Your task to perform on an android device: turn on the 24-hour format for clock Image 0: 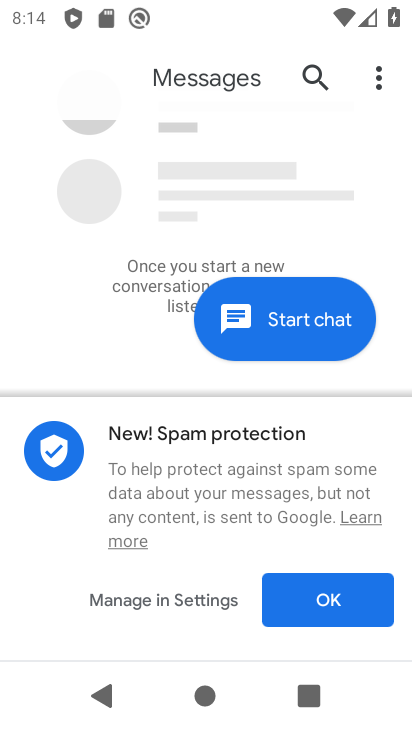
Step 0: press home button
Your task to perform on an android device: turn on the 24-hour format for clock Image 1: 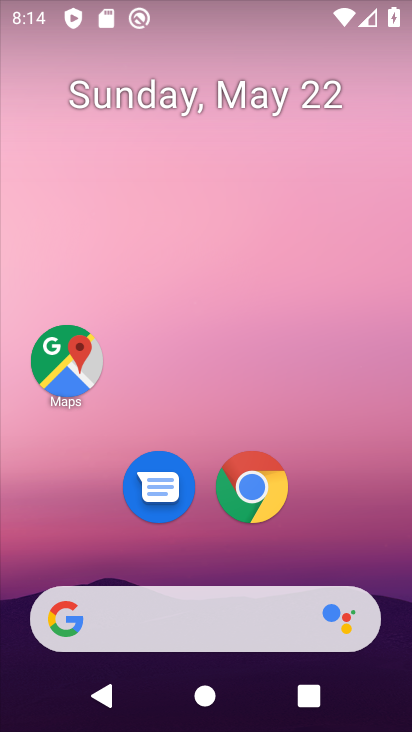
Step 1: drag from (197, 571) to (287, 19)
Your task to perform on an android device: turn on the 24-hour format for clock Image 2: 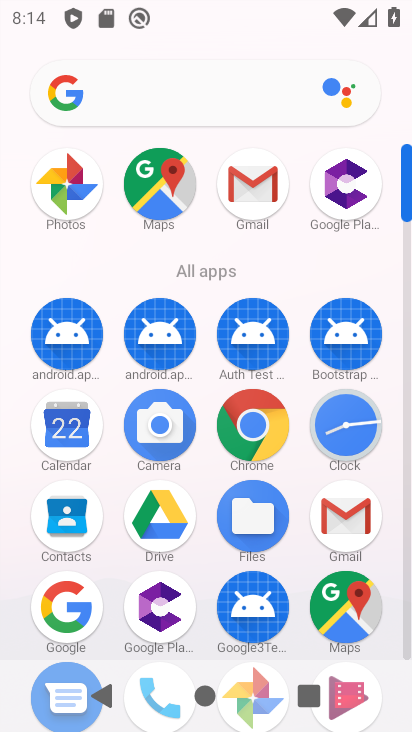
Step 2: click (345, 426)
Your task to perform on an android device: turn on the 24-hour format for clock Image 3: 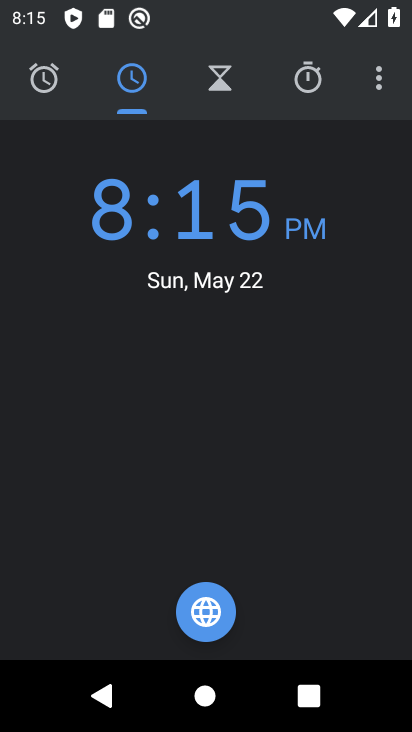
Step 3: click (390, 85)
Your task to perform on an android device: turn on the 24-hour format for clock Image 4: 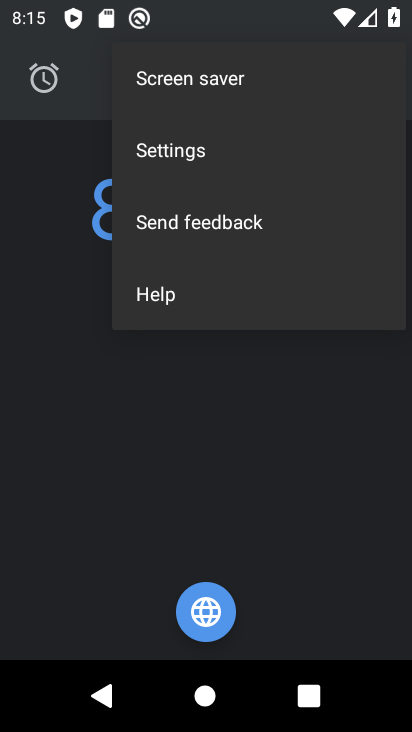
Step 4: click (259, 145)
Your task to perform on an android device: turn on the 24-hour format for clock Image 5: 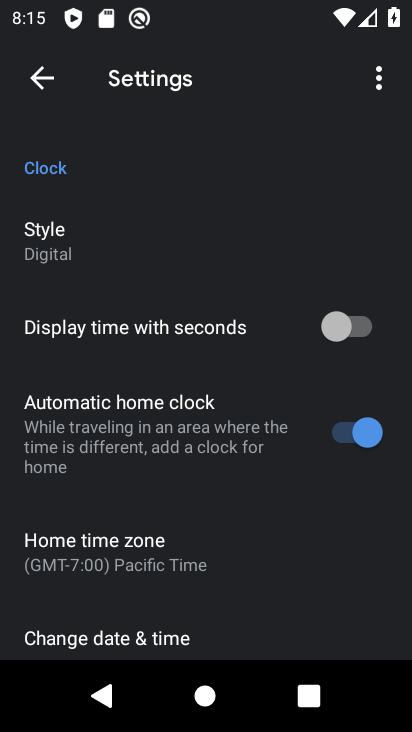
Step 5: click (51, 637)
Your task to perform on an android device: turn on the 24-hour format for clock Image 6: 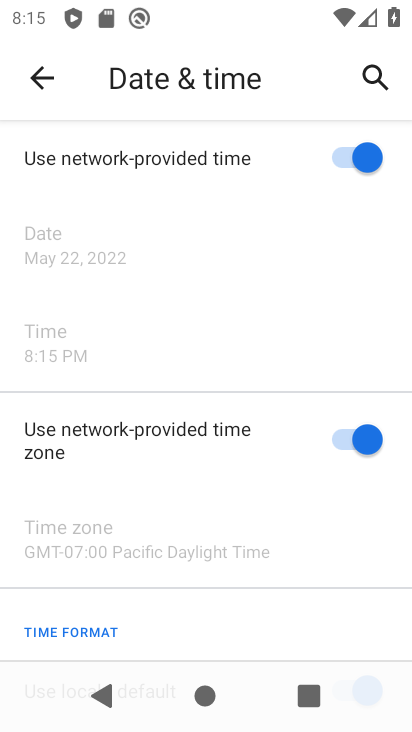
Step 6: drag from (190, 632) to (260, 221)
Your task to perform on an android device: turn on the 24-hour format for clock Image 7: 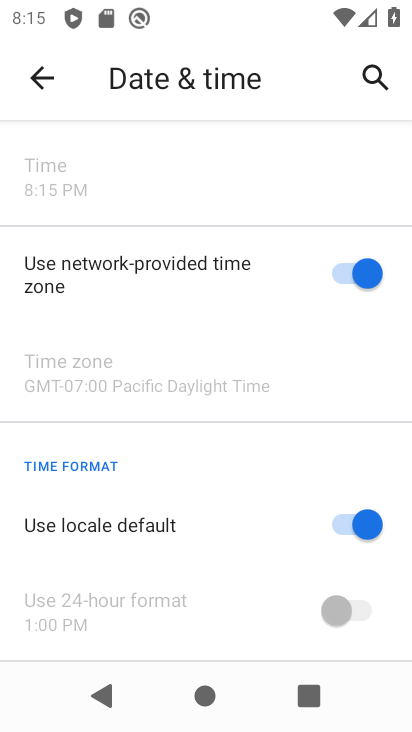
Step 7: click (355, 530)
Your task to perform on an android device: turn on the 24-hour format for clock Image 8: 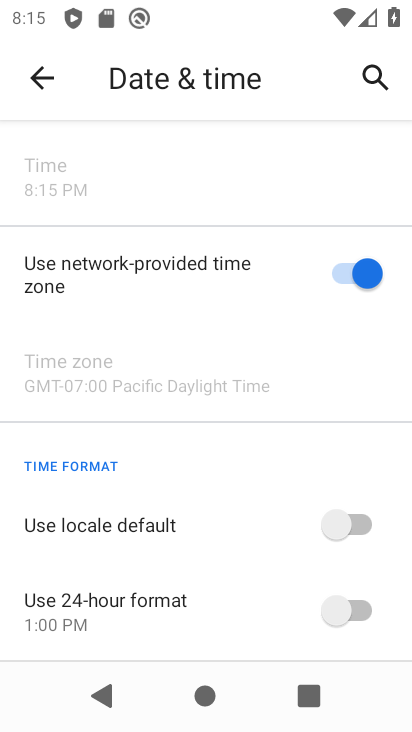
Step 8: click (360, 617)
Your task to perform on an android device: turn on the 24-hour format for clock Image 9: 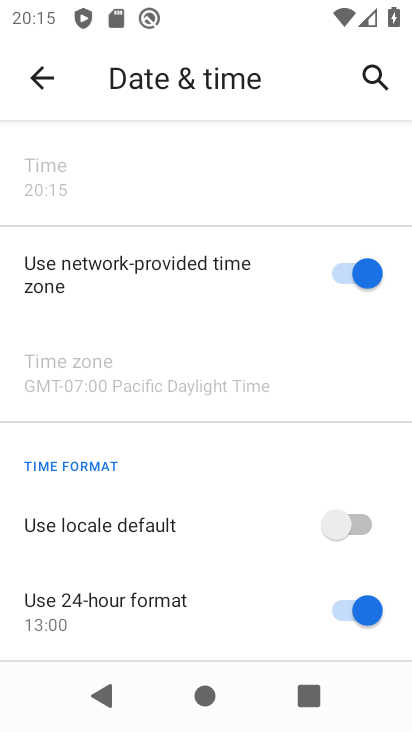
Step 9: task complete